Your task to perform on an android device: find snoozed emails in the gmail app Image 0: 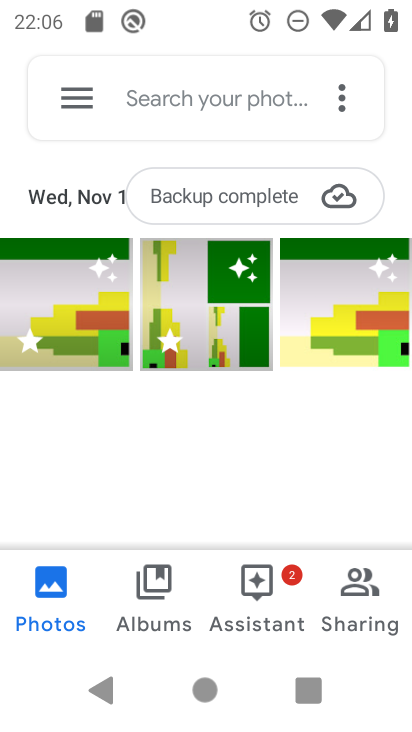
Step 0: press home button
Your task to perform on an android device: find snoozed emails in the gmail app Image 1: 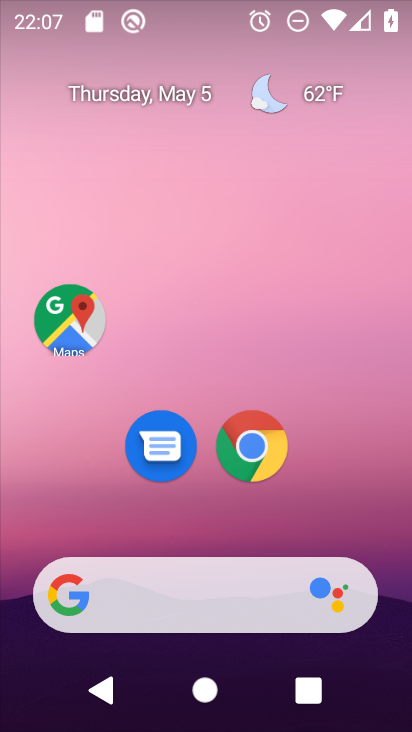
Step 1: drag from (269, 647) to (267, 342)
Your task to perform on an android device: find snoozed emails in the gmail app Image 2: 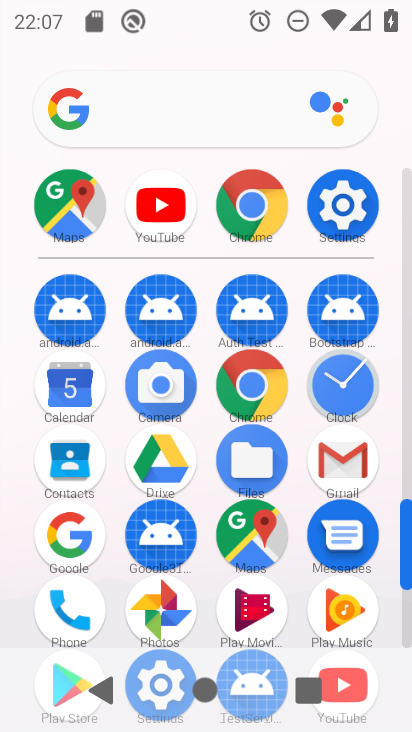
Step 2: click (326, 461)
Your task to perform on an android device: find snoozed emails in the gmail app Image 3: 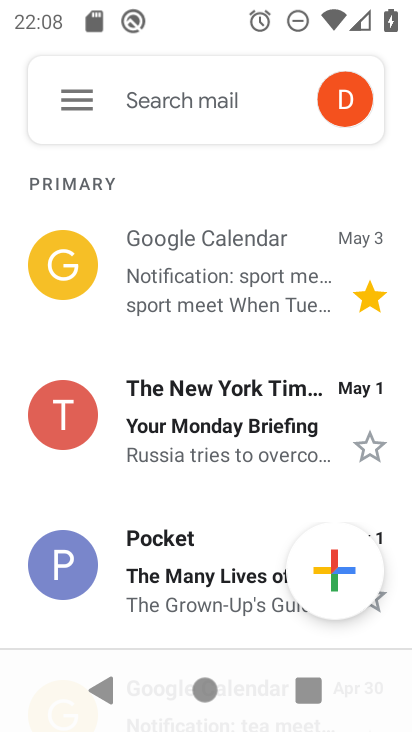
Step 3: click (58, 77)
Your task to perform on an android device: find snoozed emails in the gmail app Image 4: 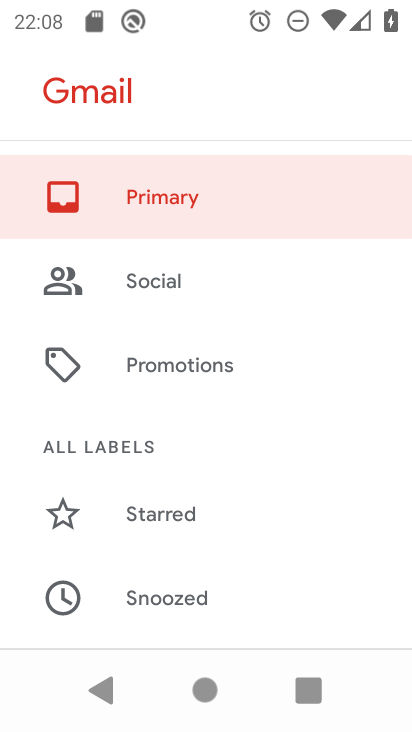
Step 4: click (136, 603)
Your task to perform on an android device: find snoozed emails in the gmail app Image 5: 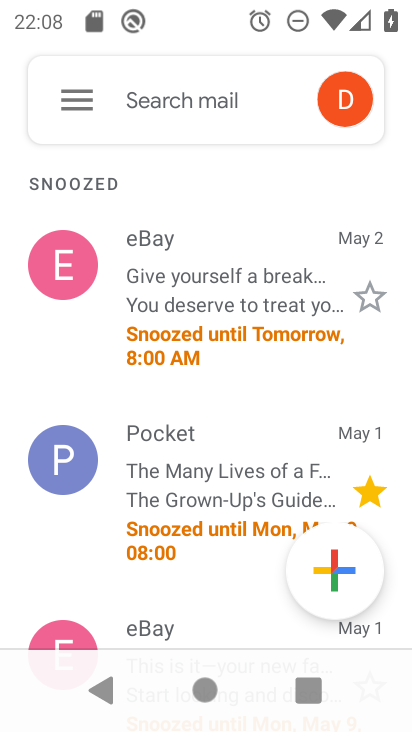
Step 5: task complete